Your task to perform on an android device: Open calendar and show me the third week of next month Image 0: 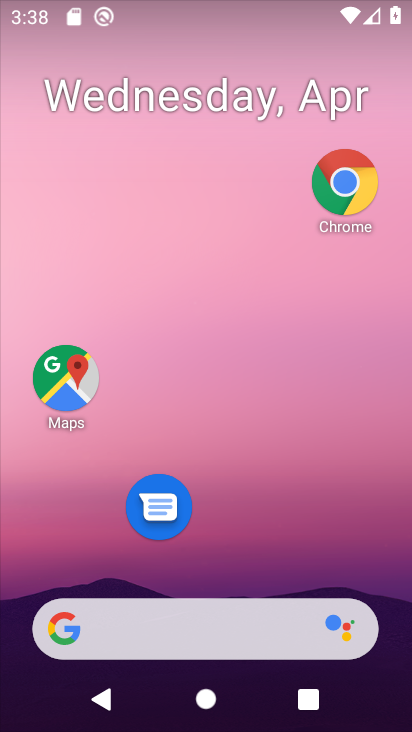
Step 0: drag from (237, 554) to (313, 2)
Your task to perform on an android device: Open calendar and show me the third week of next month Image 1: 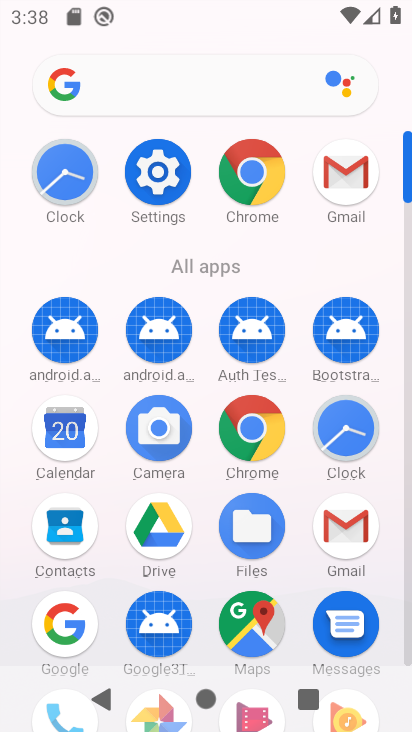
Step 1: click (67, 433)
Your task to perform on an android device: Open calendar and show me the third week of next month Image 2: 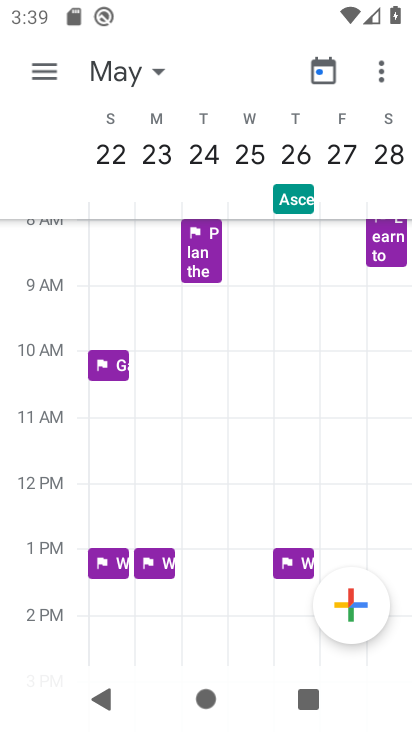
Step 2: task complete